Your task to perform on an android device: empty trash in the gmail app Image 0: 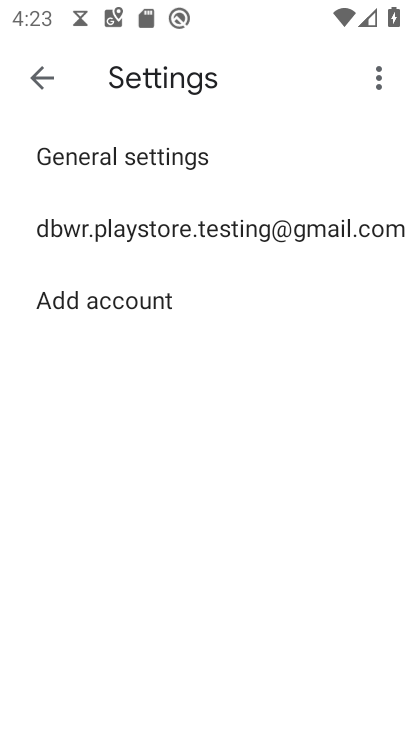
Step 0: click (29, 81)
Your task to perform on an android device: empty trash in the gmail app Image 1: 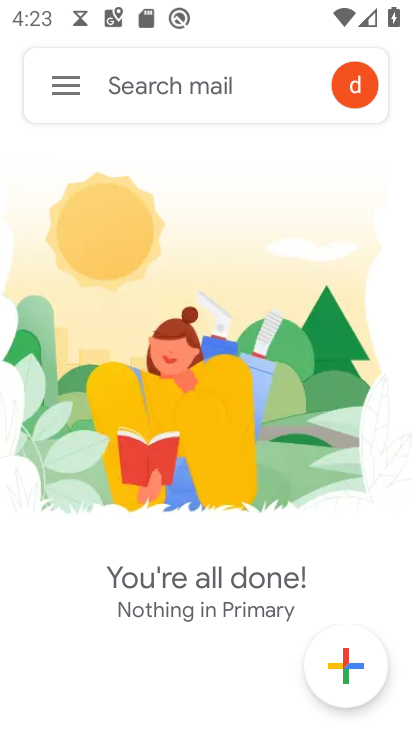
Step 1: click (49, 80)
Your task to perform on an android device: empty trash in the gmail app Image 2: 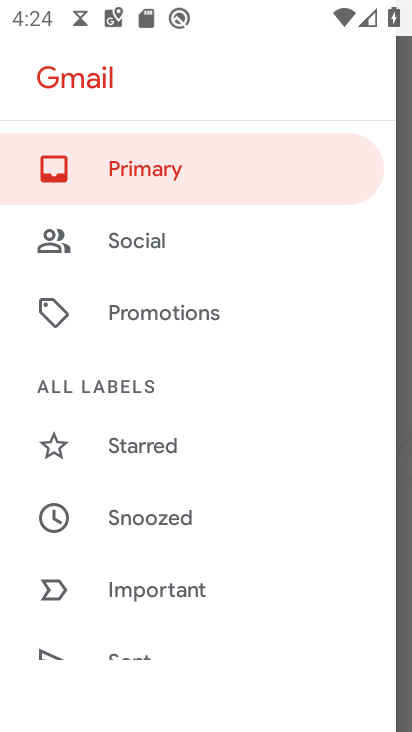
Step 2: drag from (272, 525) to (202, 210)
Your task to perform on an android device: empty trash in the gmail app Image 3: 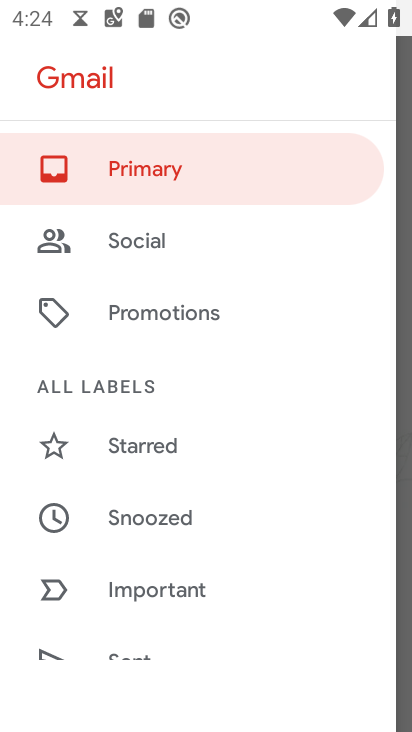
Step 3: drag from (229, 538) to (205, 315)
Your task to perform on an android device: empty trash in the gmail app Image 4: 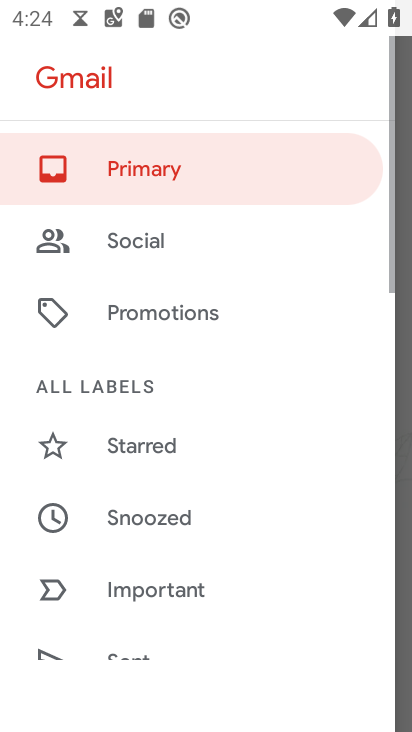
Step 4: drag from (295, 571) to (233, 202)
Your task to perform on an android device: empty trash in the gmail app Image 5: 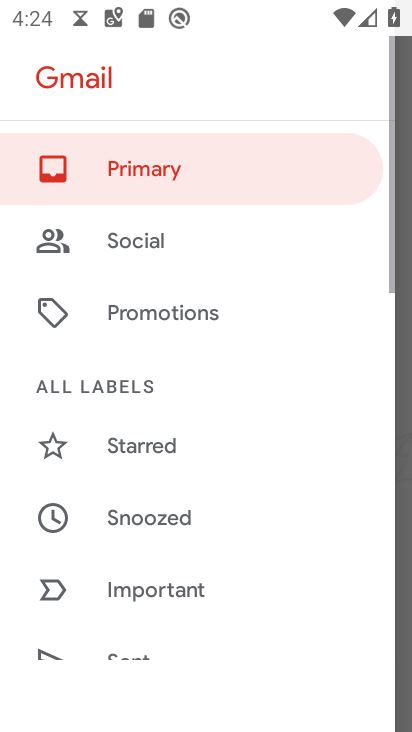
Step 5: drag from (274, 425) to (236, 184)
Your task to perform on an android device: empty trash in the gmail app Image 6: 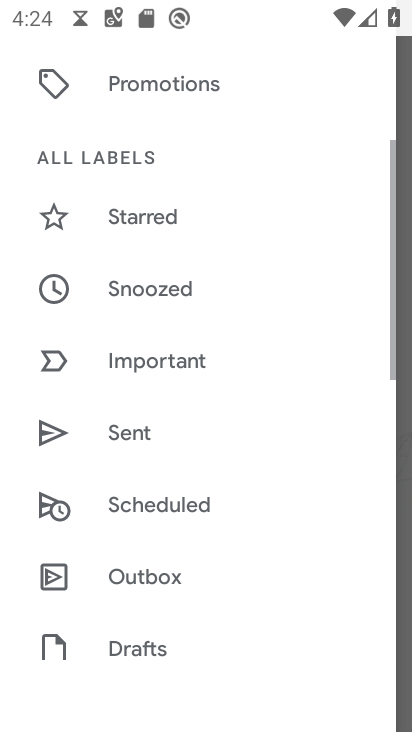
Step 6: drag from (235, 463) to (186, 270)
Your task to perform on an android device: empty trash in the gmail app Image 7: 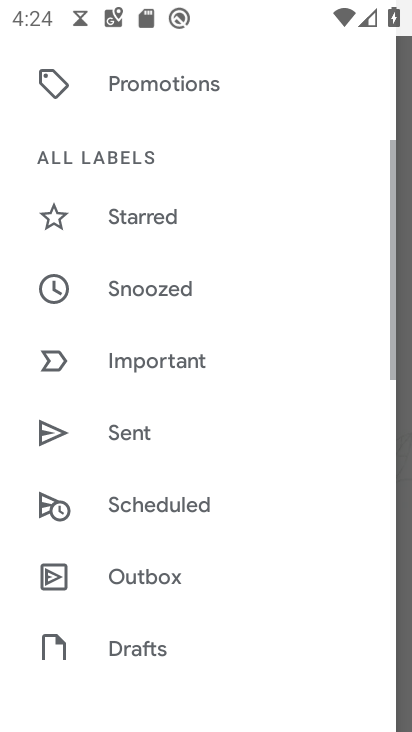
Step 7: drag from (198, 539) to (185, 271)
Your task to perform on an android device: empty trash in the gmail app Image 8: 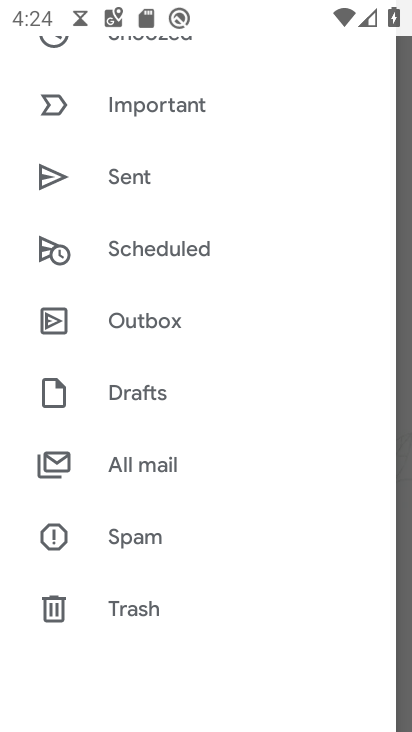
Step 8: click (135, 607)
Your task to perform on an android device: empty trash in the gmail app Image 9: 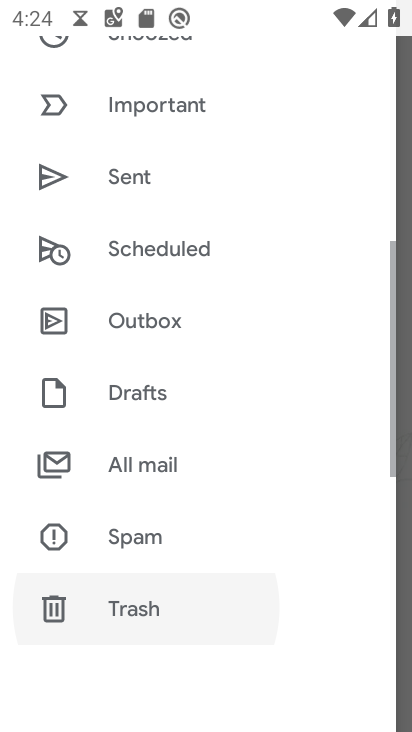
Step 9: click (136, 611)
Your task to perform on an android device: empty trash in the gmail app Image 10: 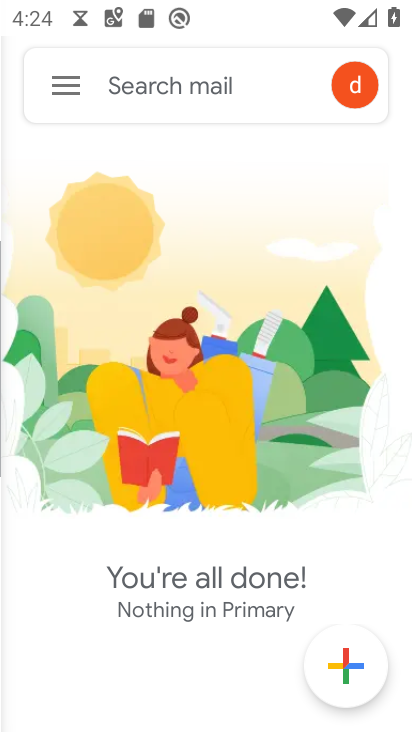
Step 10: click (134, 611)
Your task to perform on an android device: empty trash in the gmail app Image 11: 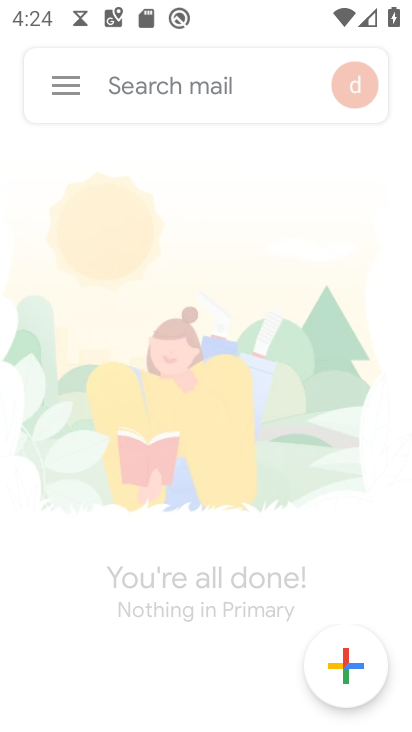
Step 11: click (132, 611)
Your task to perform on an android device: empty trash in the gmail app Image 12: 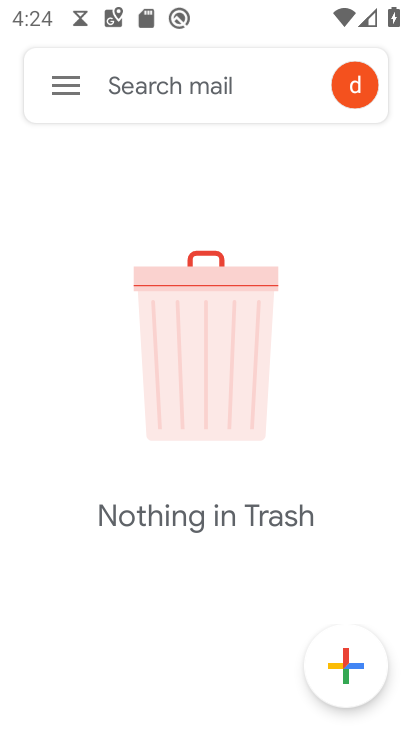
Step 12: click (73, 78)
Your task to perform on an android device: empty trash in the gmail app Image 13: 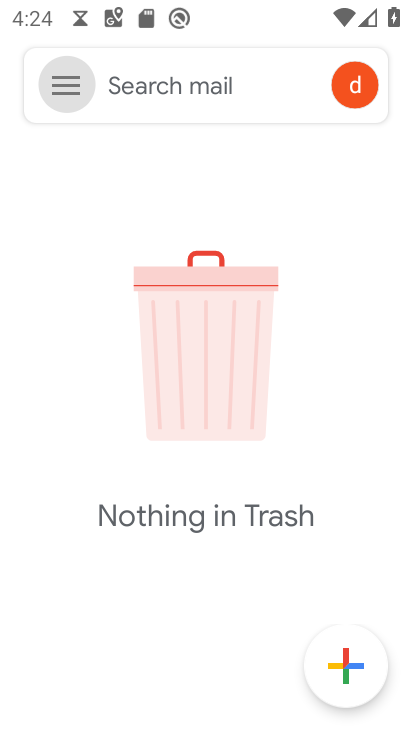
Step 13: click (75, 84)
Your task to perform on an android device: empty trash in the gmail app Image 14: 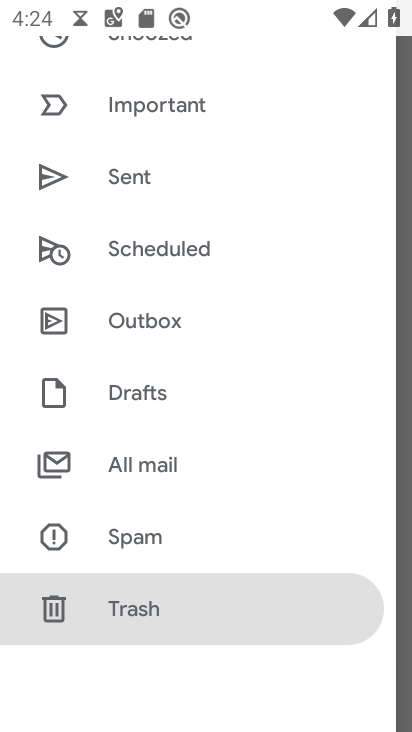
Step 14: click (144, 607)
Your task to perform on an android device: empty trash in the gmail app Image 15: 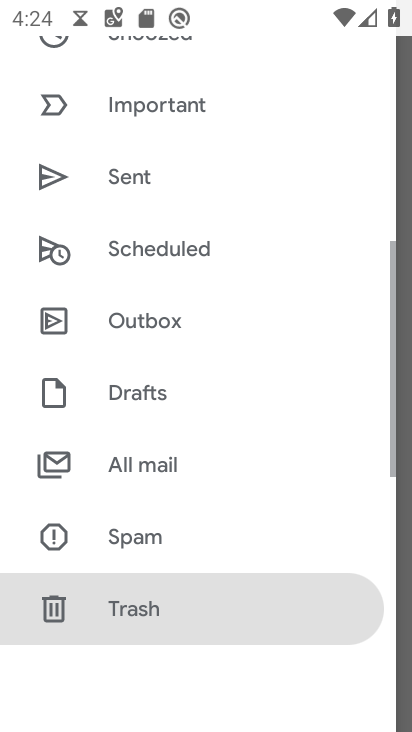
Step 15: click (142, 605)
Your task to perform on an android device: empty trash in the gmail app Image 16: 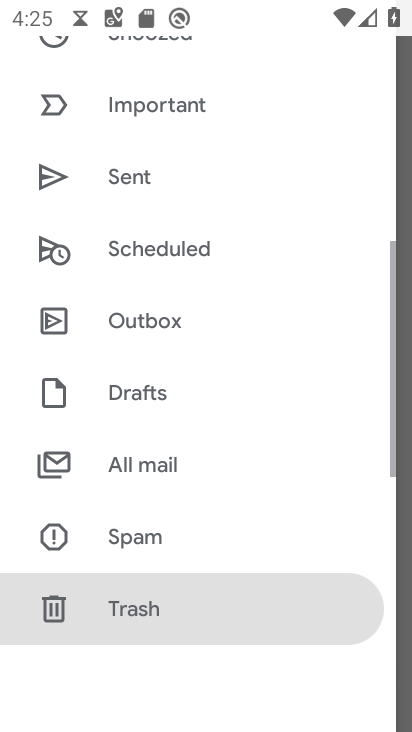
Step 16: click (134, 605)
Your task to perform on an android device: empty trash in the gmail app Image 17: 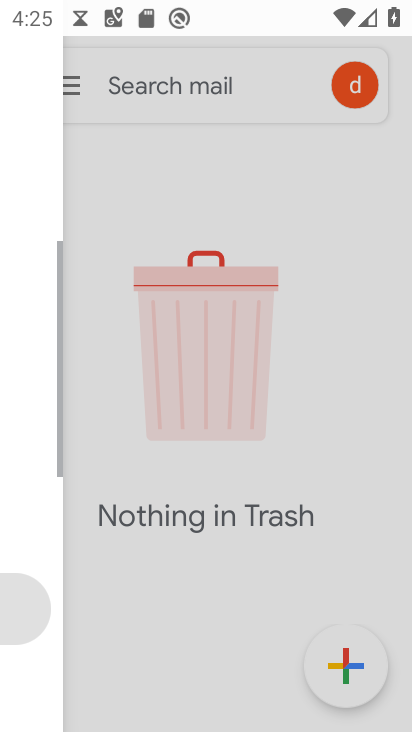
Step 17: click (123, 595)
Your task to perform on an android device: empty trash in the gmail app Image 18: 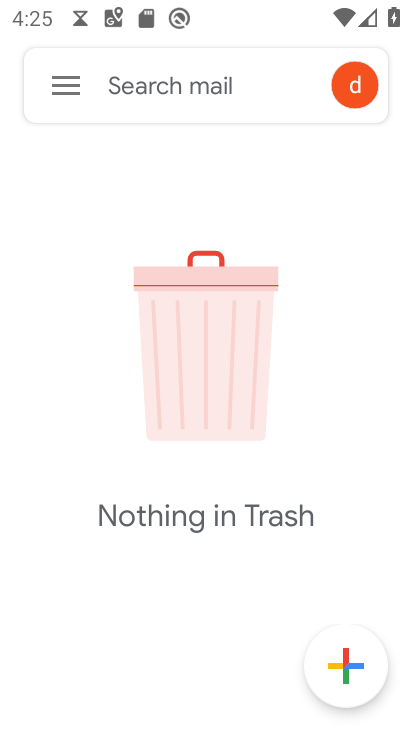
Step 18: task complete